Your task to perform on an android device: Go to privacy settings Image 0: 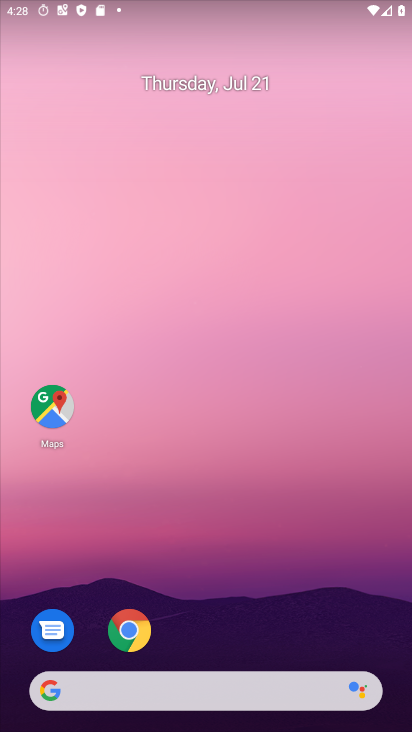
Step 0: drag from (186, 685) to (222, 164)
Your task to perform on an android device: Go to privacy settings Image 1: 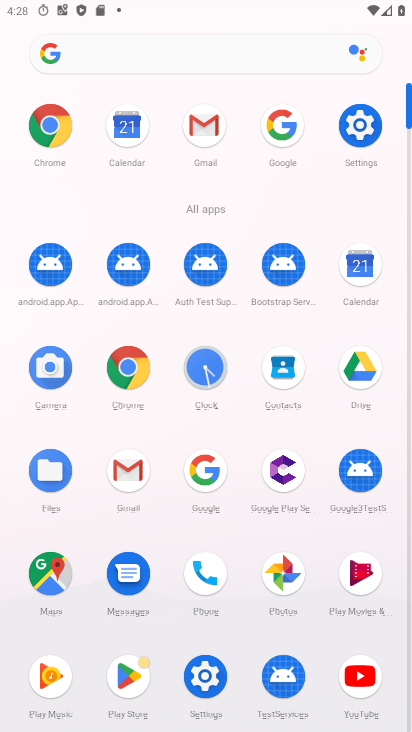
Step 1: click (360, 125)
Your task to perform on an android device: Go to privacy settings Image 2: 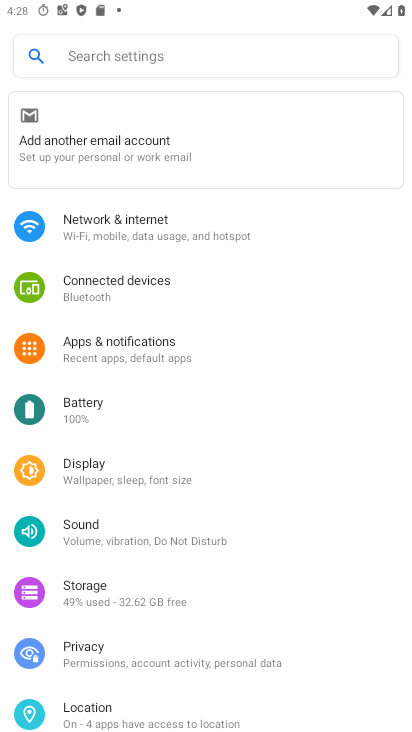
Step 2: click (91, 653)
Your task to perform on an android device: Go to privacy settings Image 3: 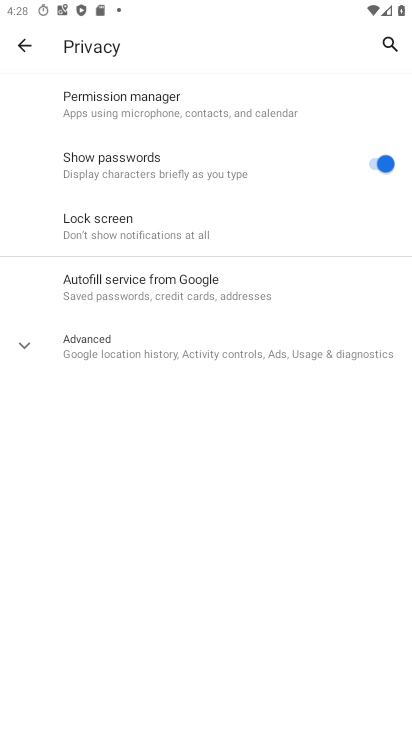
Step 3: task complete